Your task to perform on an android device: turn on priority inbox in the gmail app Image 0: 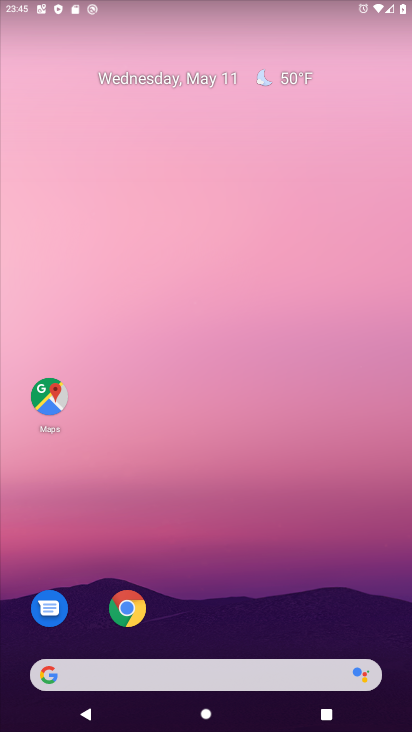
Step 0: drag from (256, 600) to (233, 36)
Your task to perform on an android device: turn on priority inbox in the gmail app Image 1: 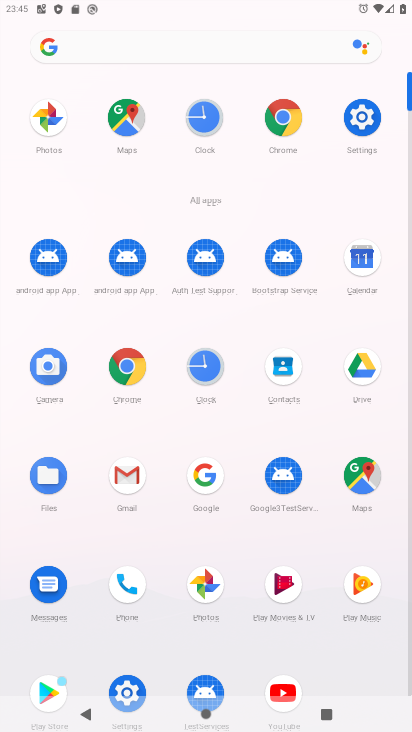
Step 1: click (123, 477)
Your task to perform on an android device: turn on priority inbox in the gmail app Image 2: 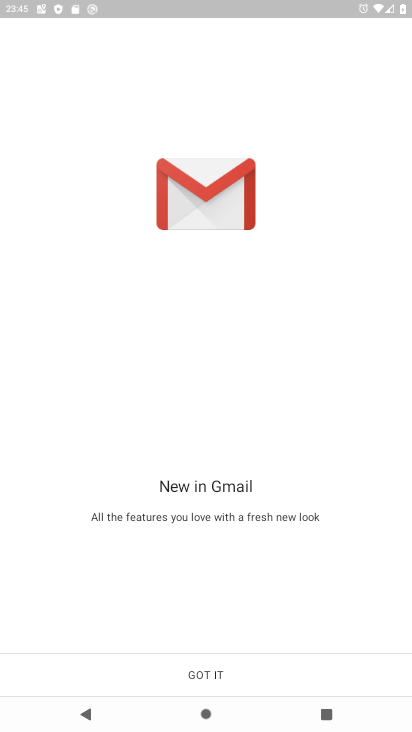
Step 2: click (195, 674)
Your task to perform on an android device: turn on priority inbox in the gmail app Image 3: 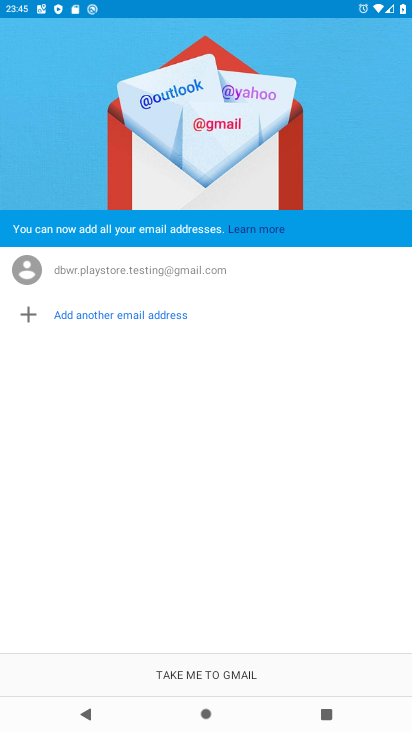
Step 3: click (195, 673)
Your task to perform on an android device: turn on priority inbox in the gmail app Image 4: 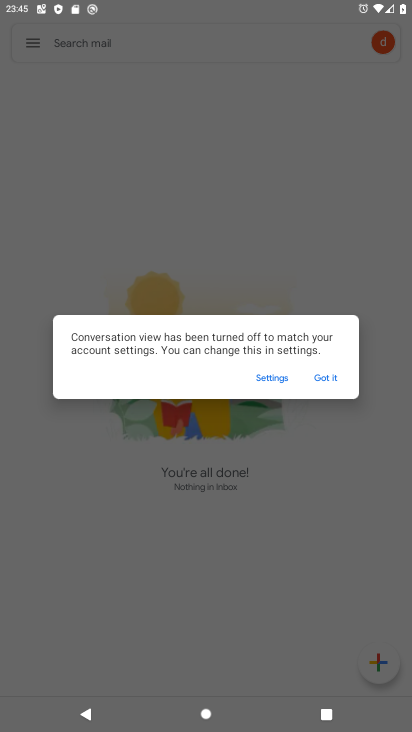
Step 4: click (331, 375)
Your task to perform on an android device: turn on priority inbox in the gmail app Image 5: 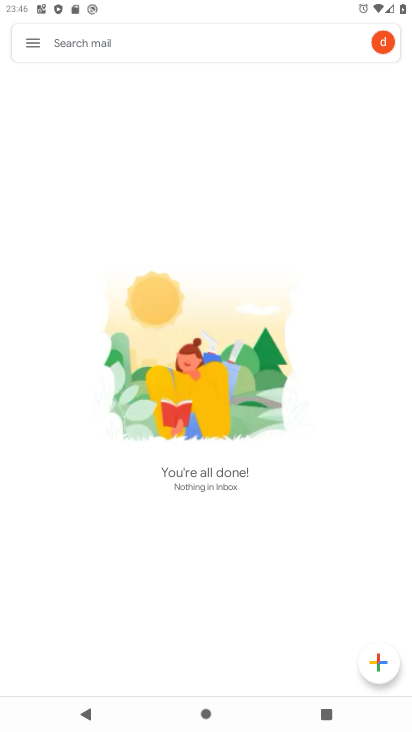
Step 5: click (32, 41)
Your task to perform on an android device: turn on priority inbox in the gmail app Image 6: 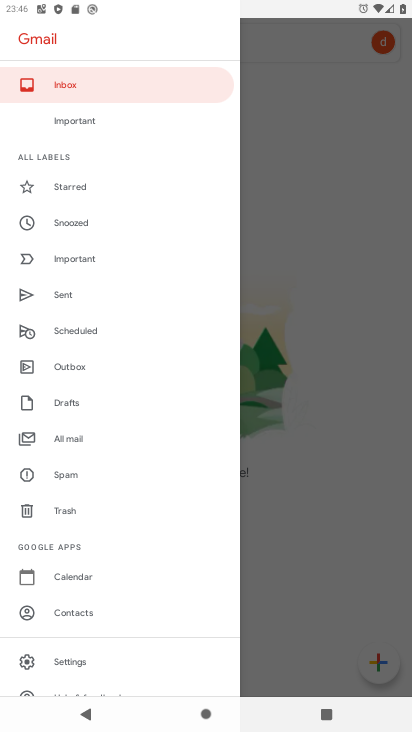
Step 6: click (57, 657)
Your task to perform on an android device: turn on priority inbox in the gmail app Image 7: 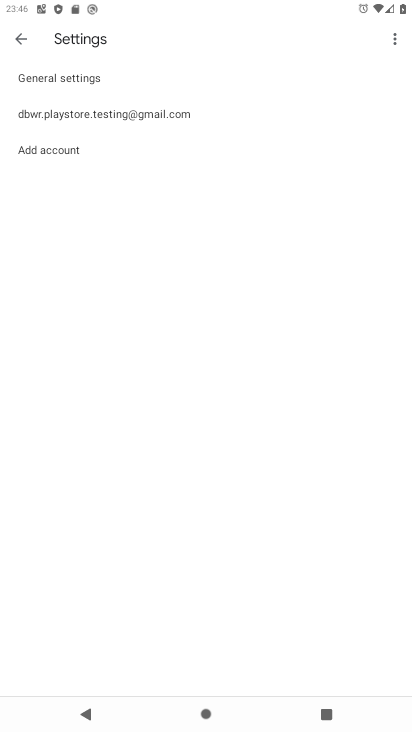
Step 7: click (110, 109)
Your task to perform on an android device: turn on priority inbox in the gmail app Image 8: 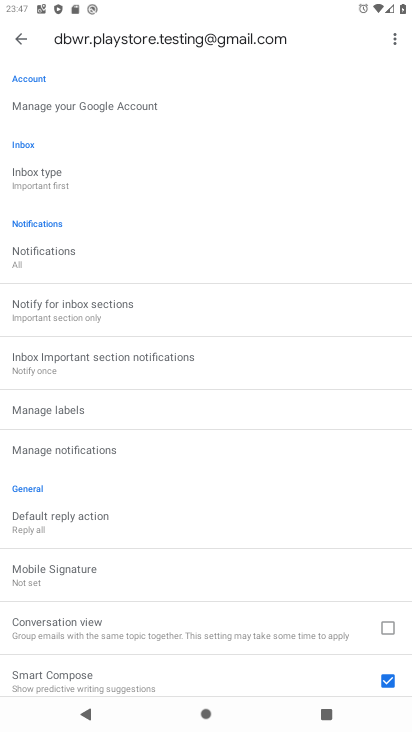
Step 8: click (54, 182)
Your task to perform on an android device: turn on priority inbox in the gmail app Image 9: 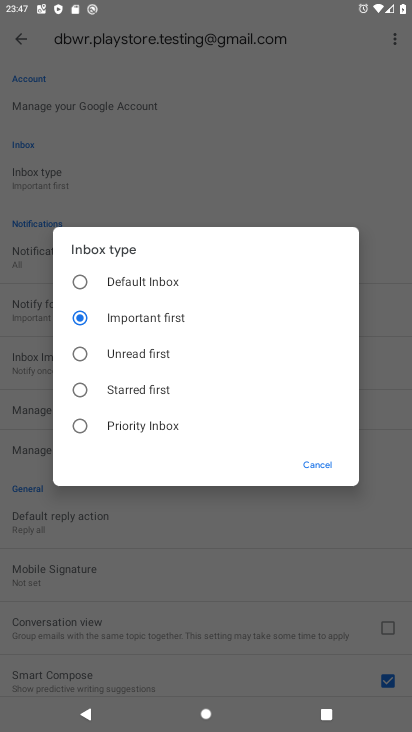
Step 9: click (84, 425)
Your task to perform on an android device: turn on priority inbox in the gmail app Image 10: 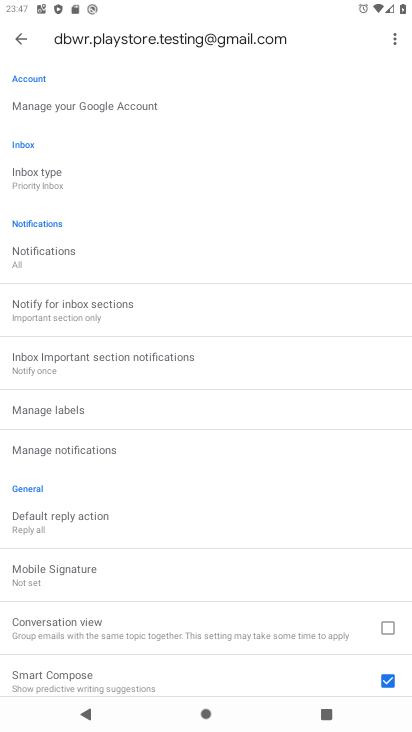
Step 10: task complete